Your task to perform on an android device: check battery use Image 0: 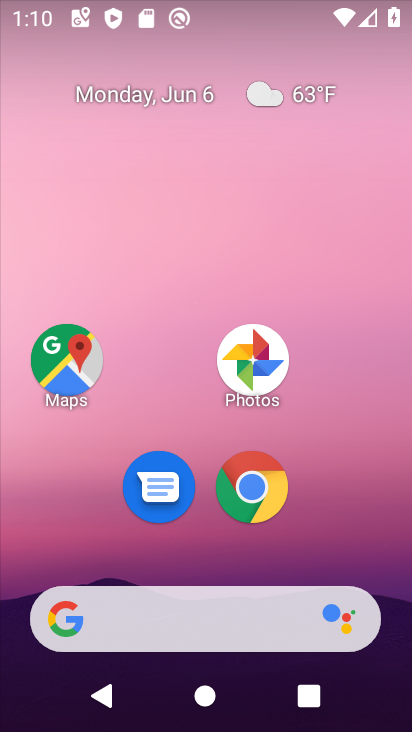
Step 0: drag from (75, 590) to (202, 84)
Your task to perform on an android device: check battery use Image 1: 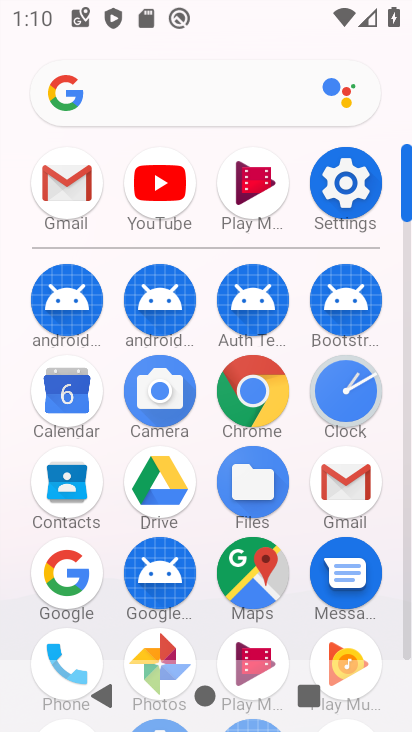
Step 1: drag from (202, 561) to (256, 220)
Your task to perform on an android device: check battery use Image 2: 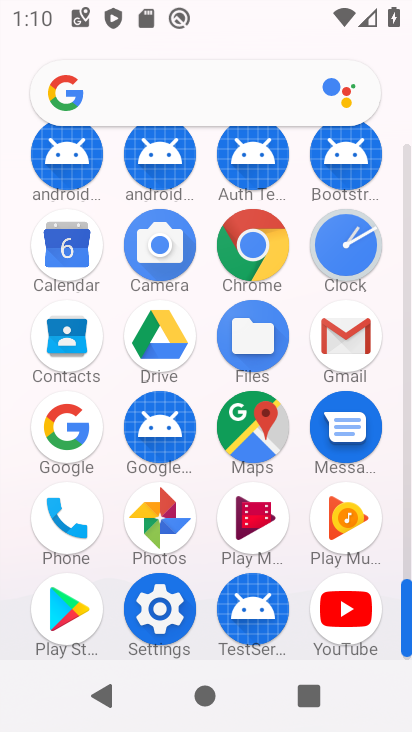
Step 2: click (165, 612)
Your task to perform on an android device: check battery use Image 3: 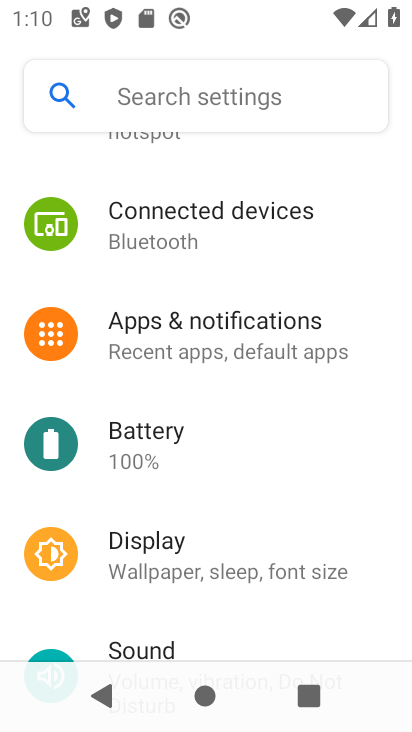
Step 3: drag from (197, 539) to (273, 175)
Your task to perform on an android device: check battery use Image 4: 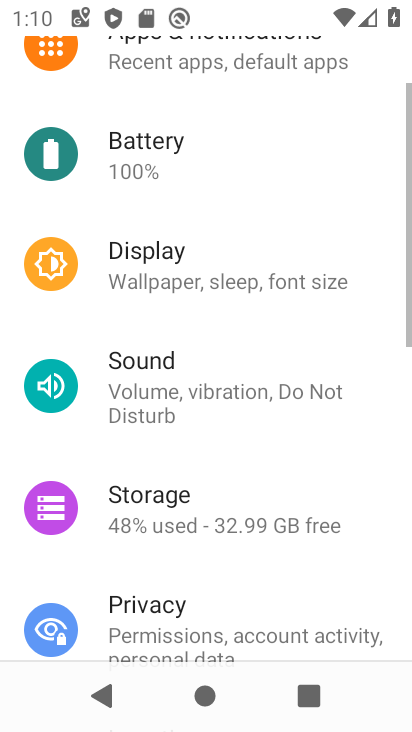
Step 4: click (182, 160)
Your task to perform on an android device: check battery use Image 5: 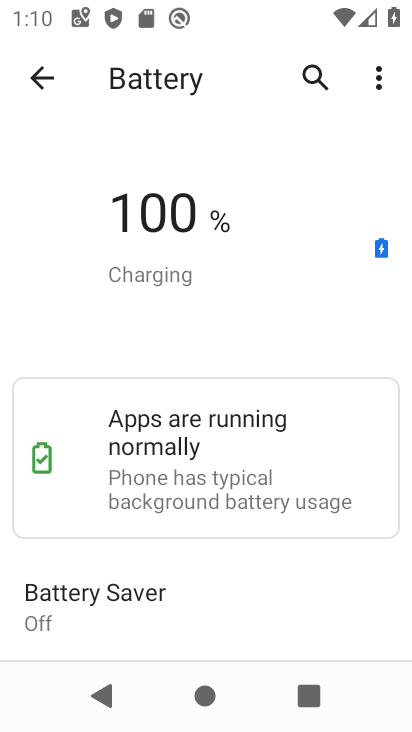
Step 5: click (380, 83)
Your task to perform on an android device: check battery use Image 6: 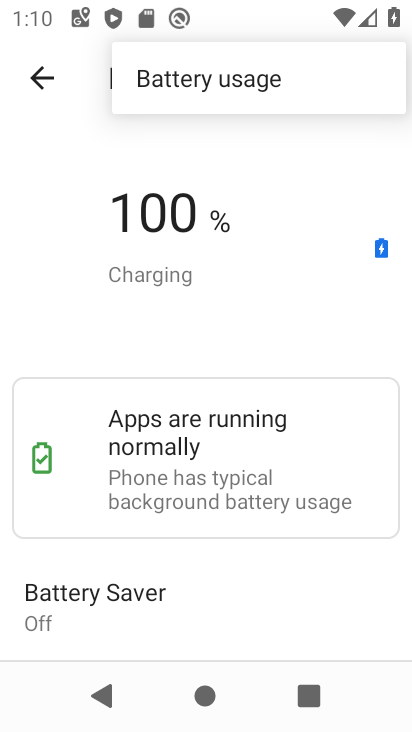
Step 6: click (355, 92)
Your task to perform on an android device: check battery use Image 7: 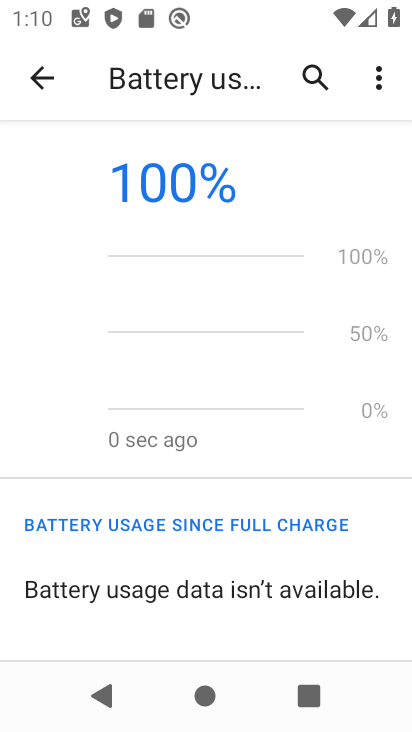
Step 7: task complete